Your task to perform on an android device: Search for usb-a on bestbuy, select the first entry, and add it to the cart. Image 0: 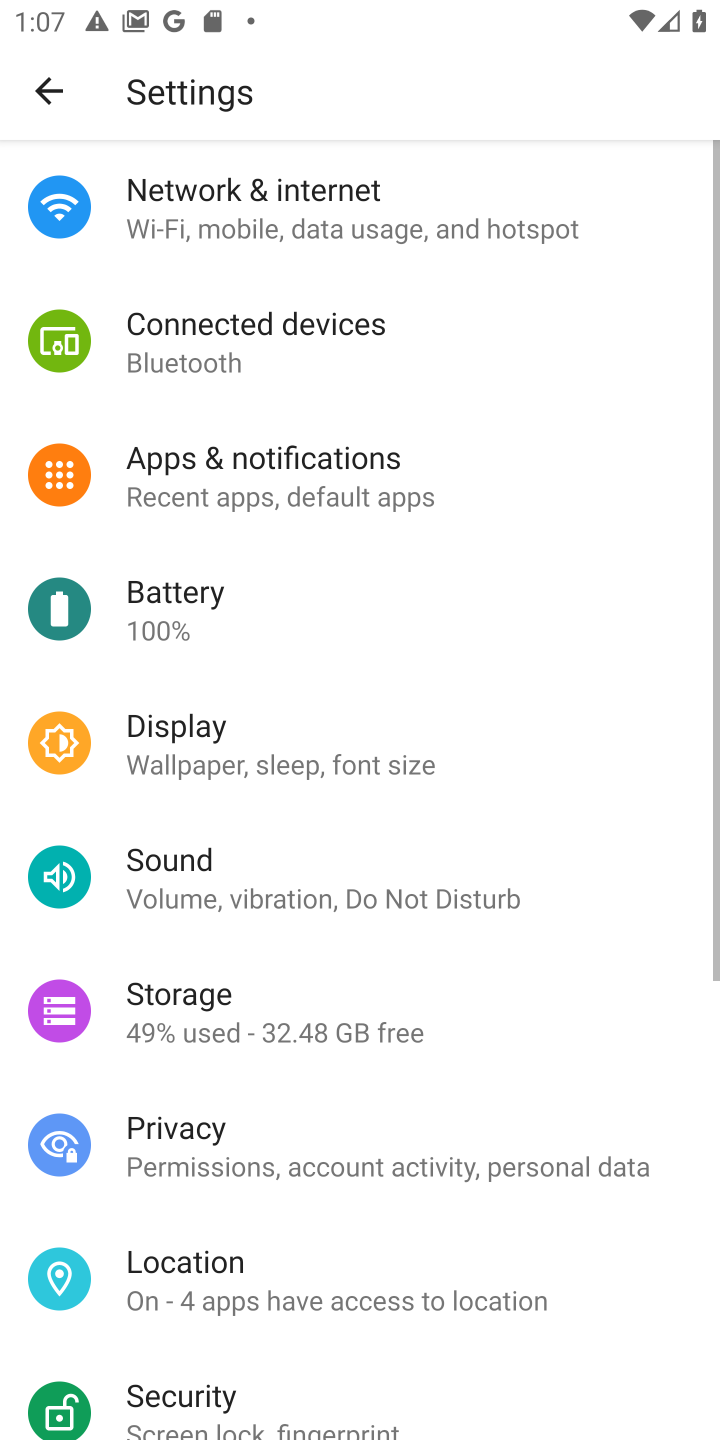
Step 0: press home button
Your task to perform on an android device: Search for usb-a on bestbuy, select the first entry, and add it to the cart. Image 1: 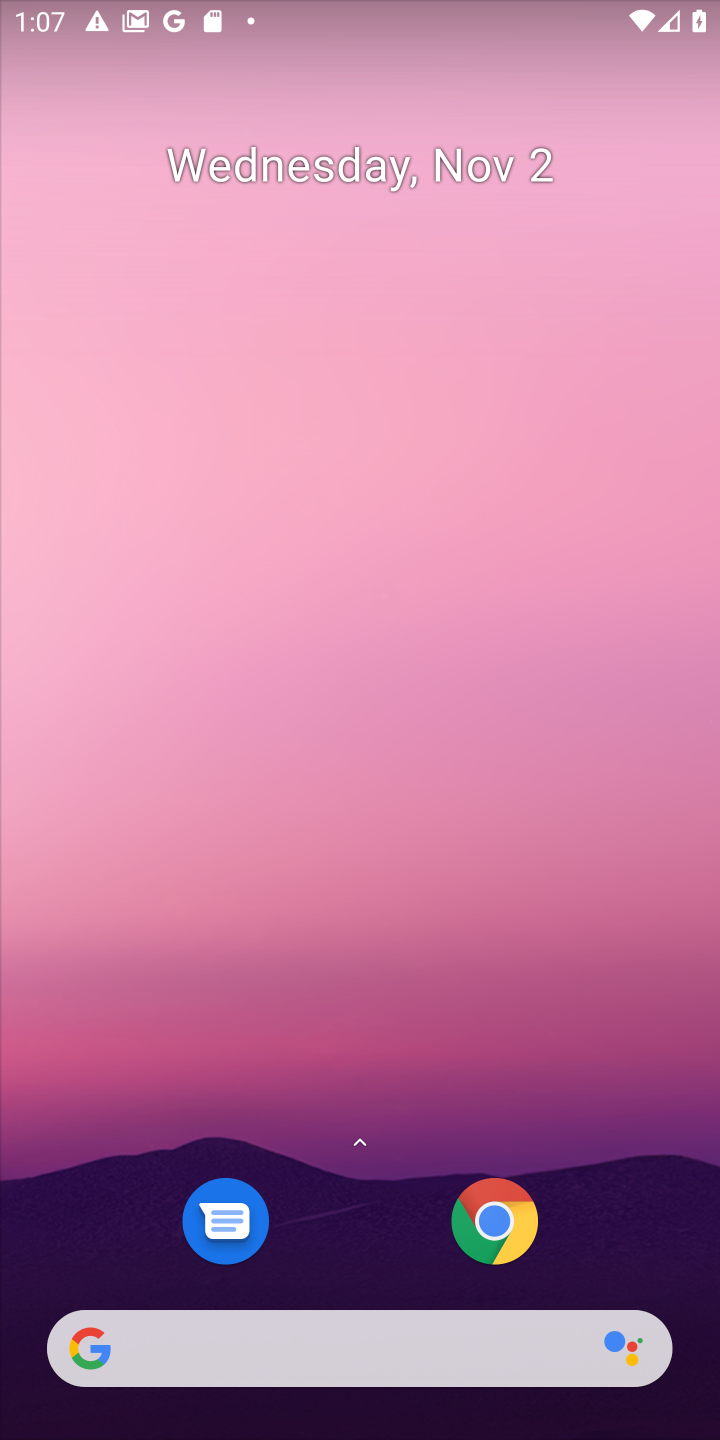
Step 1: click (418, 1384)
Your task to perform on an android device: Search for usb-a on bestbuy, select the first entry, and add it to the cart. Image 2: 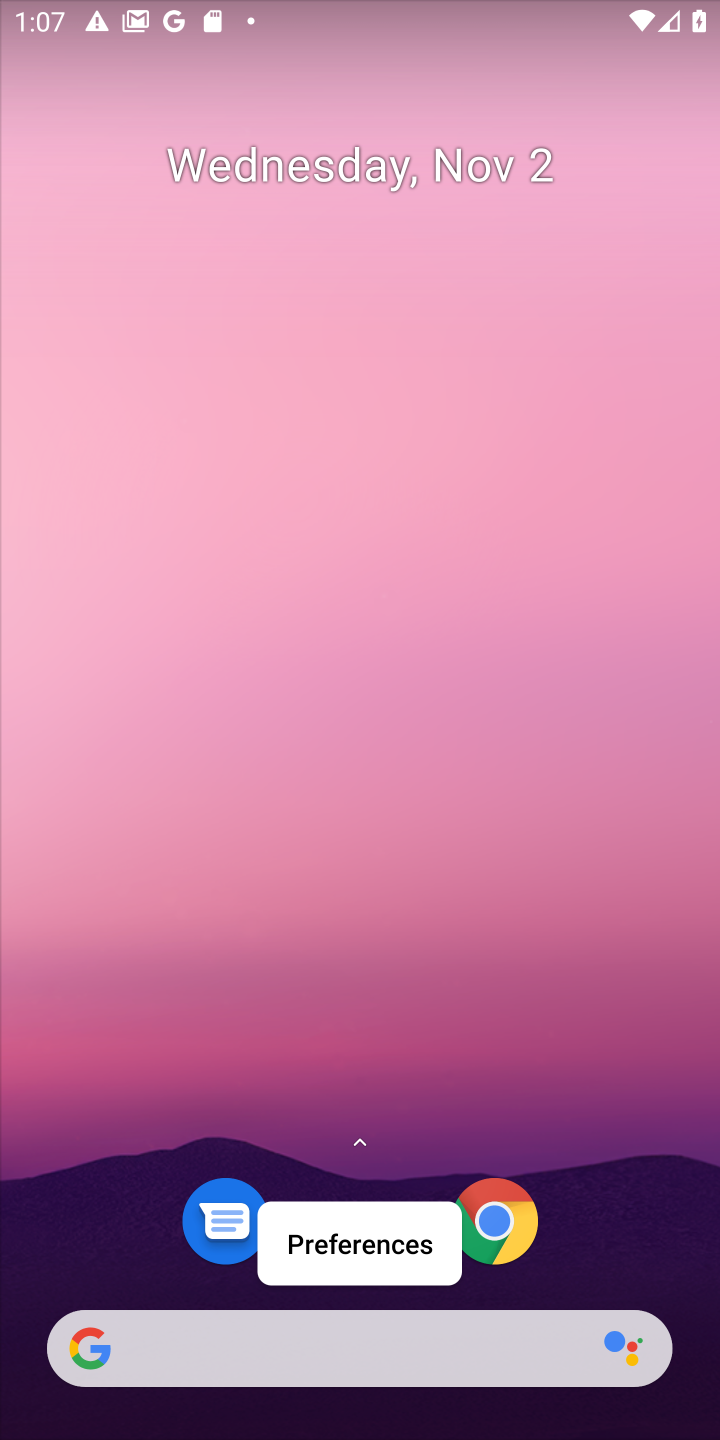
Step 2: click (415, 1335)
Your task to perform on an android device: Search for usb-a on bestbuy, select the first entry, and add it to the cart. Image 3: 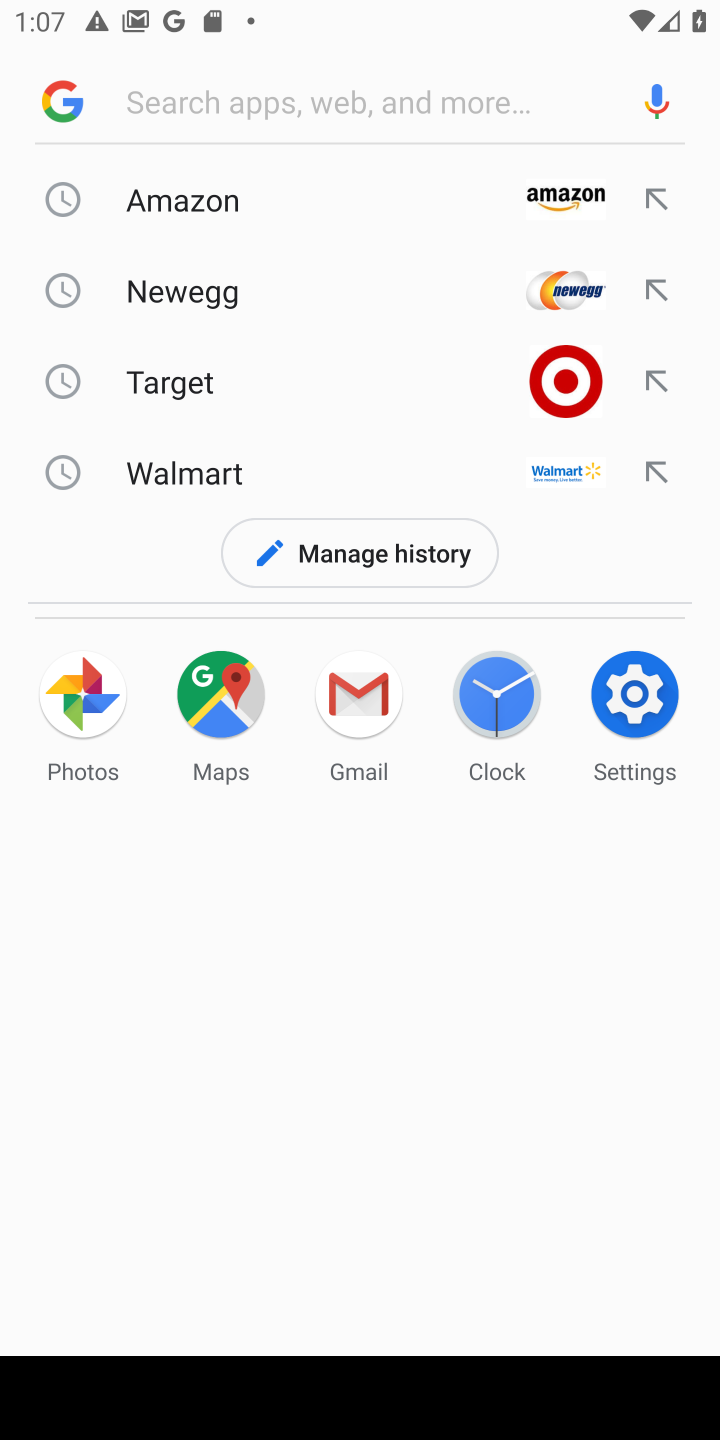
Step 3: type "bestbuy"
Your task to perform on an android device: Search for usb-a on bestbuy, select the first entry, and add it to the cart. Image 4: 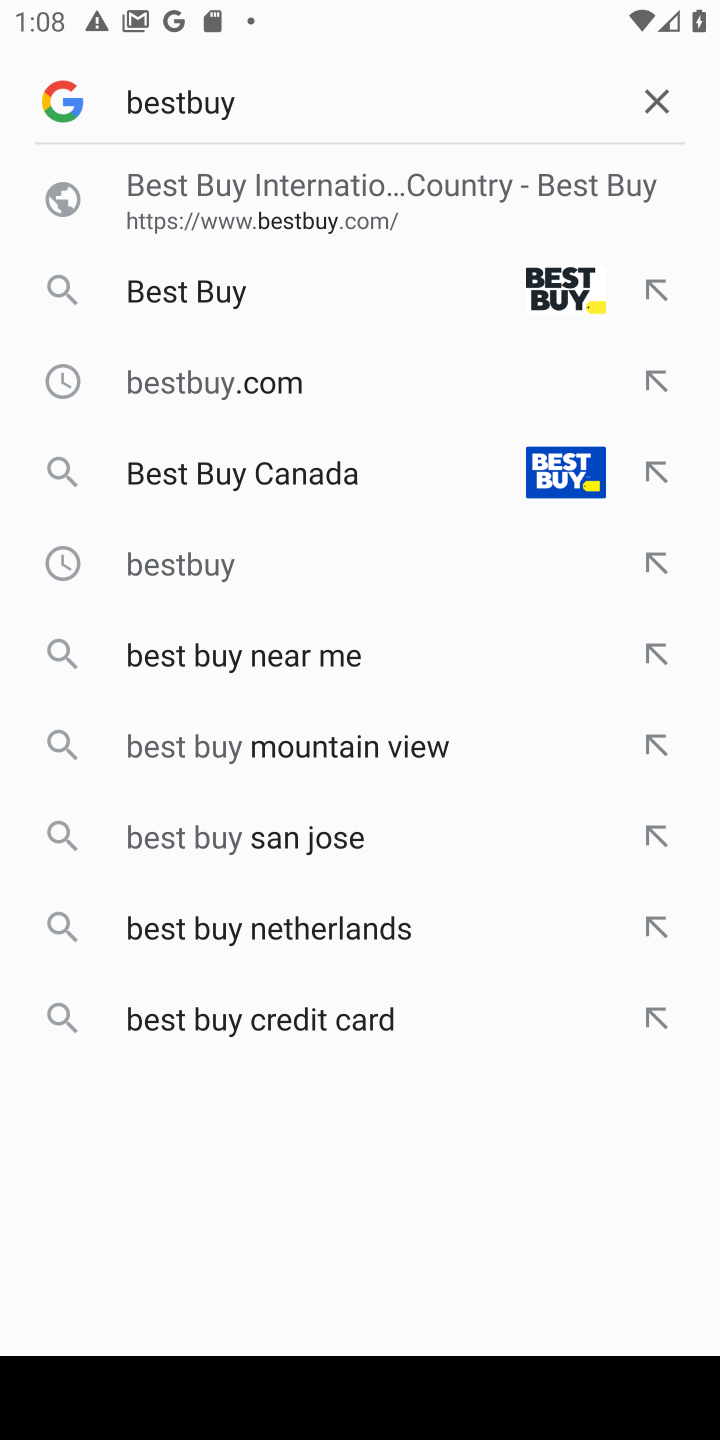
Step 4: click (342, 216)
Your task to perform on an android device: Search for usb-a on bestbuy, select the first entry, and add it to the cart. Image 5: 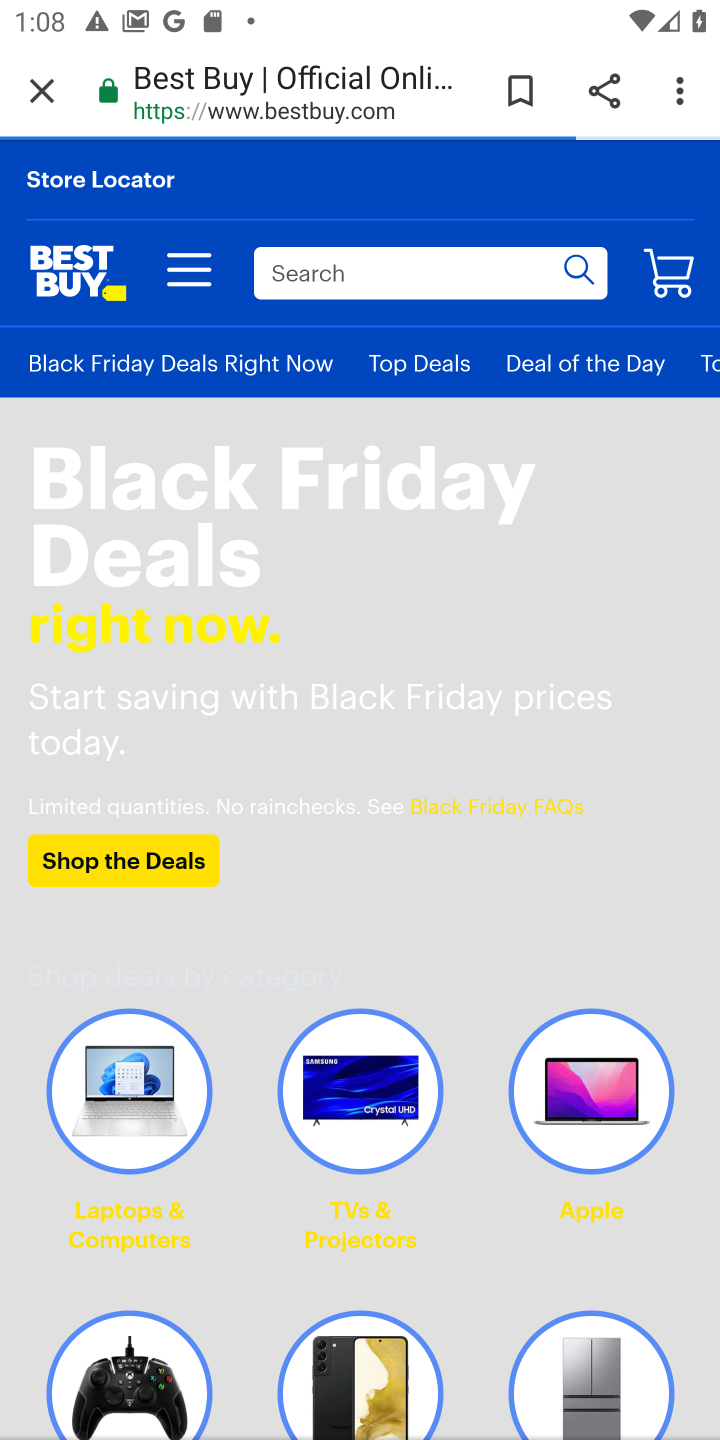
Step 5: click (361, 261)
Your task to perform on an android device: Search for usb-a on bestbuy, select the first entry, and add it to the cart. Image 6: 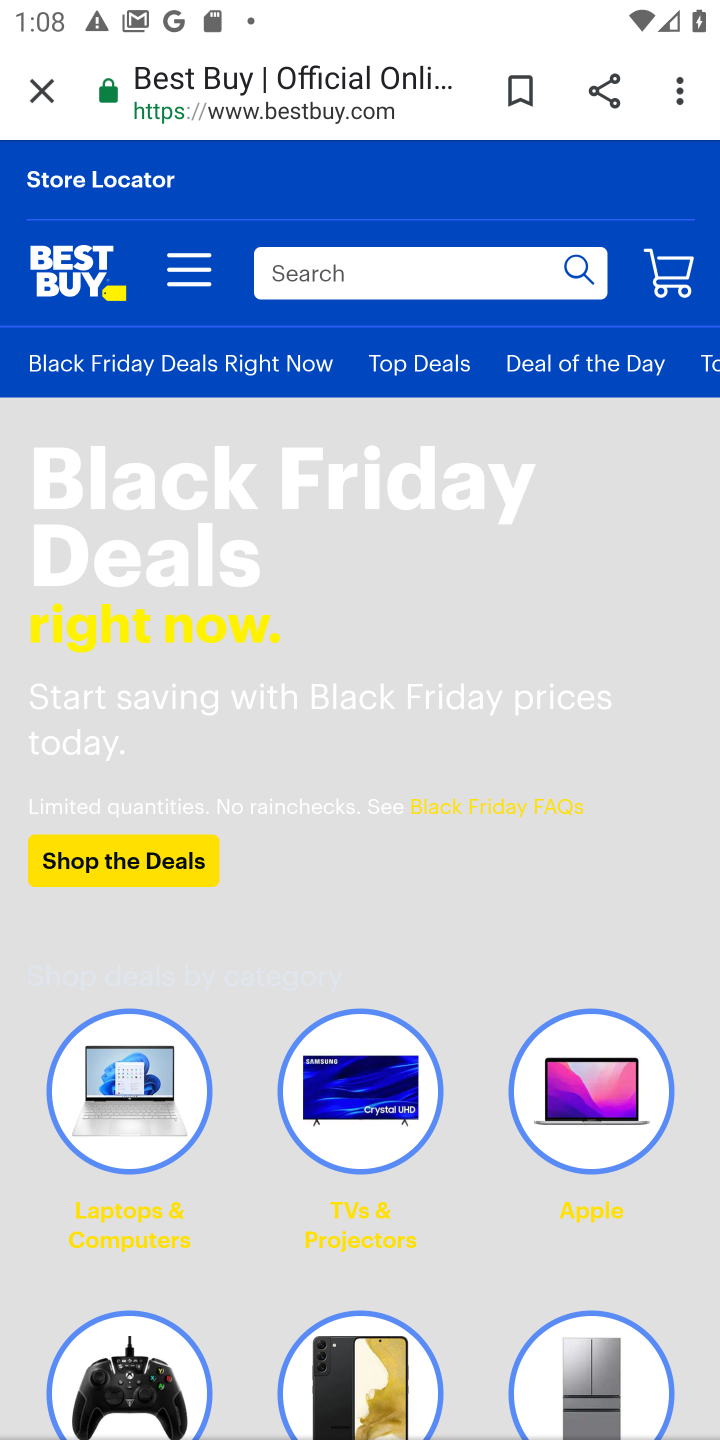
Step 6: type "ubb-a"
Your task to perform on an android device: Search for usb-a on bestbuy, select the first entry, and add it to the cart. Image 7: 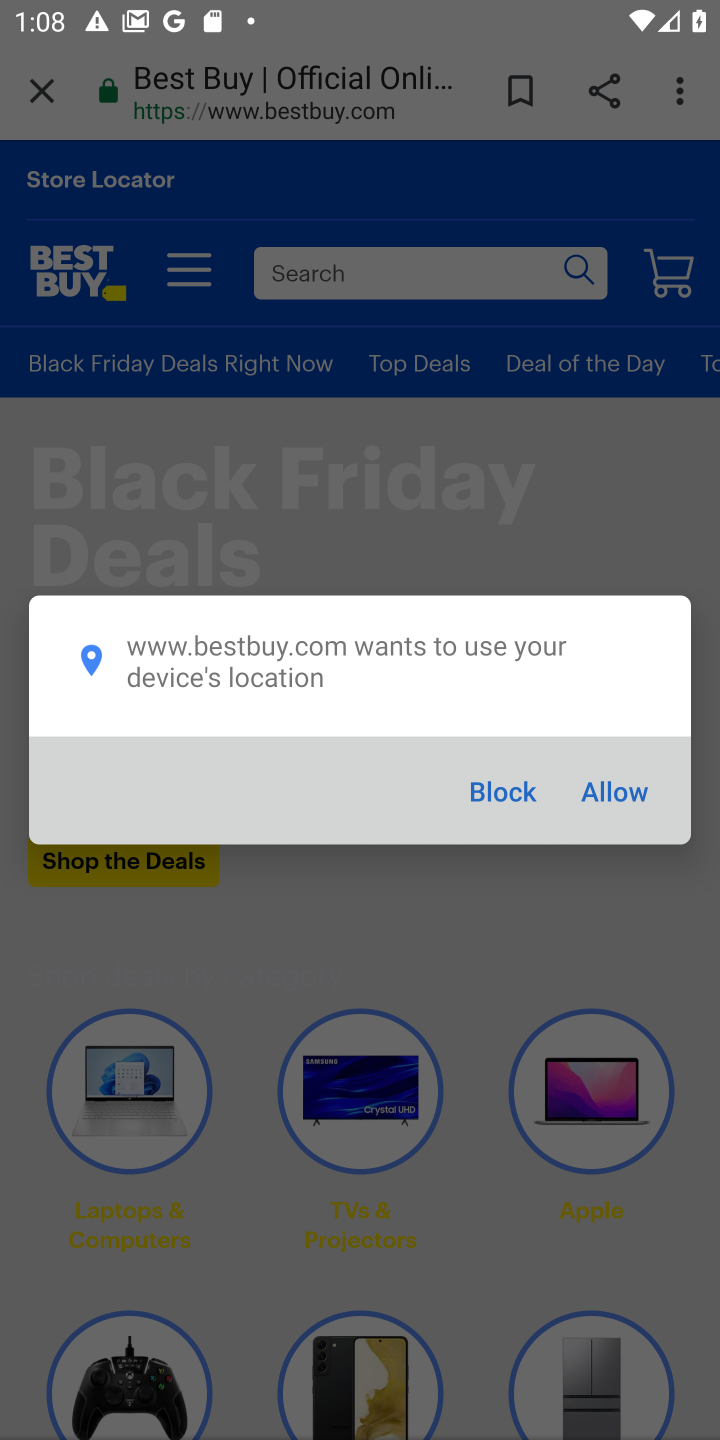
Step 7: click (493, 817)
Your task to perform on an android device: Search for usb-a on bestbuy, select the first entry, and add it to the cart. Image 8: 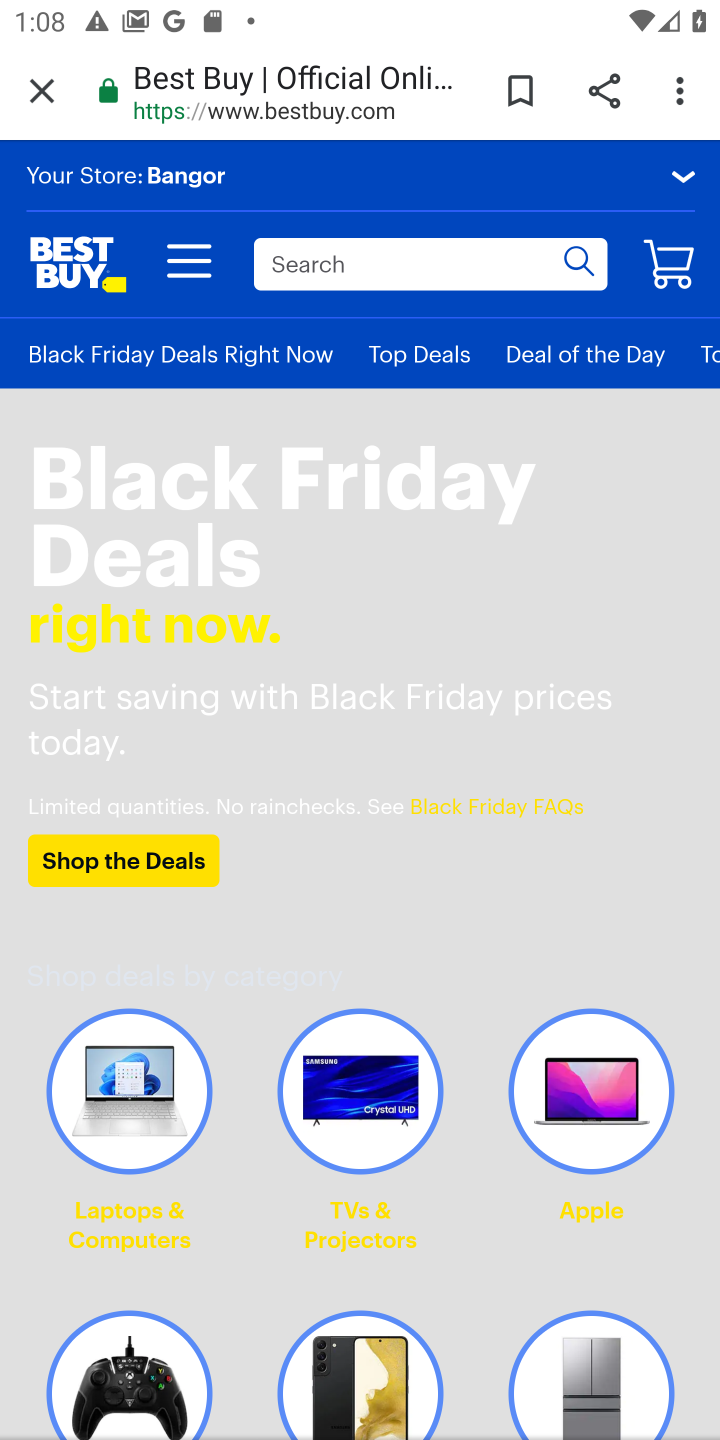
Step 8: click (478, 291)
Your task to perform on an android device: Search for usb-a on bestbuy, select the first entry, and add it to the cart. Image 9: 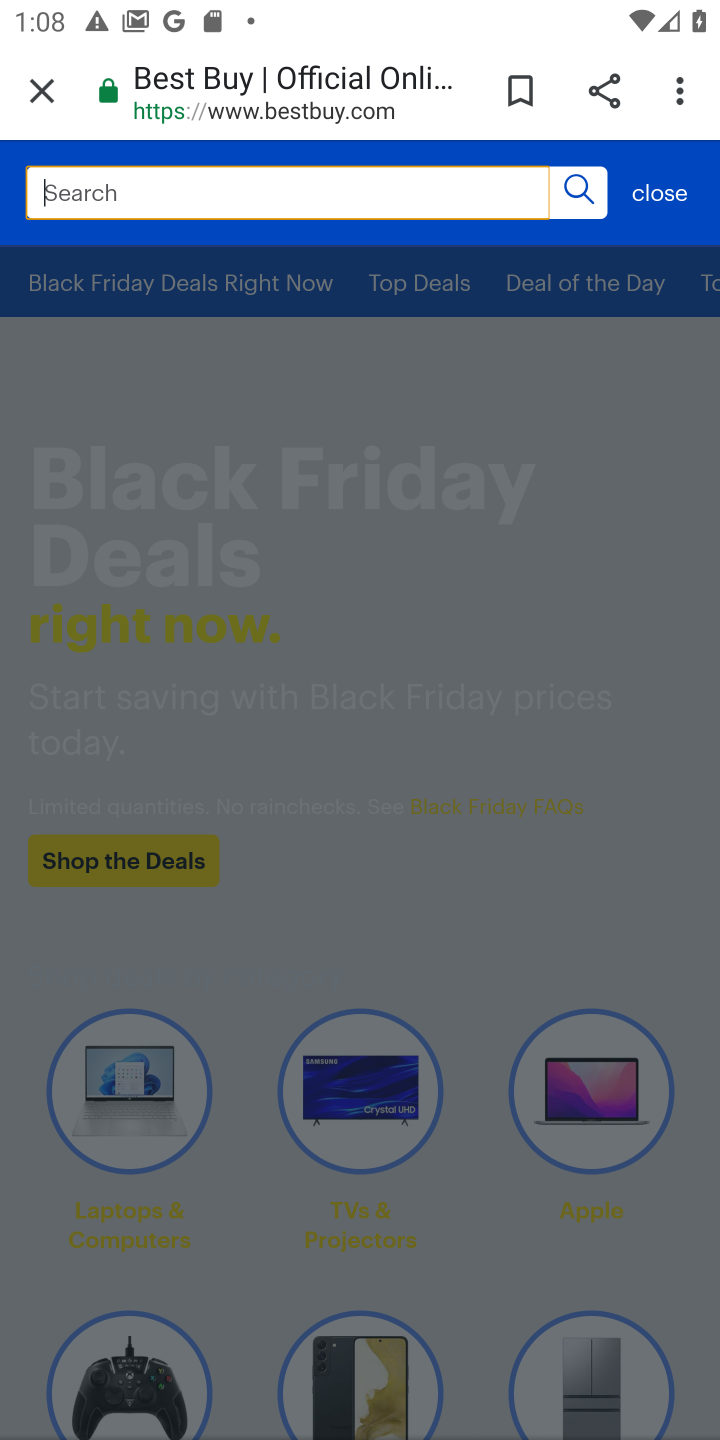
Step 9: click (464, 272)
Your task to perform on an android device: Search for usb-a on bestbuy, select the first entry, and add it to the cart. Image 10: 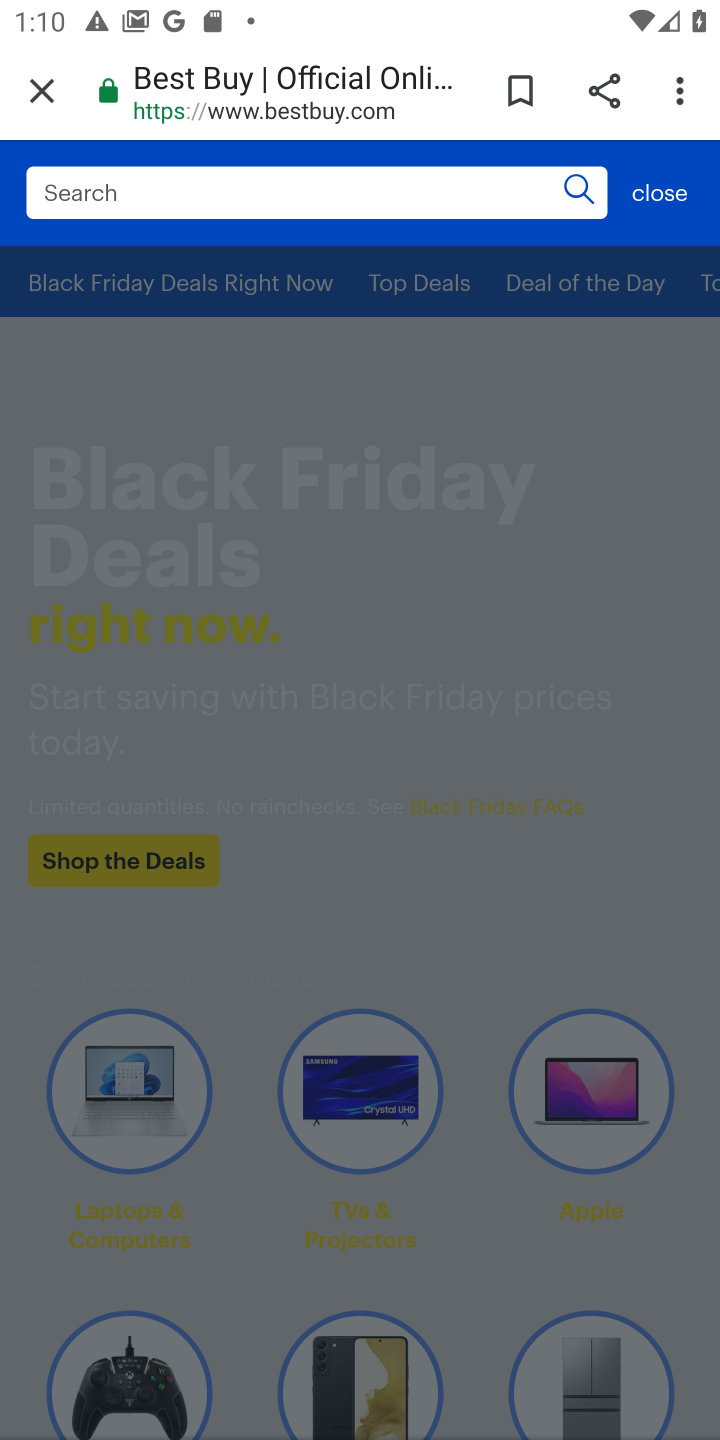
Step 10: click (311, 199)
Your task to perform on an android device: Search for usb-a on bestbuy, select the first entry, and add it to the cart. Image 11: 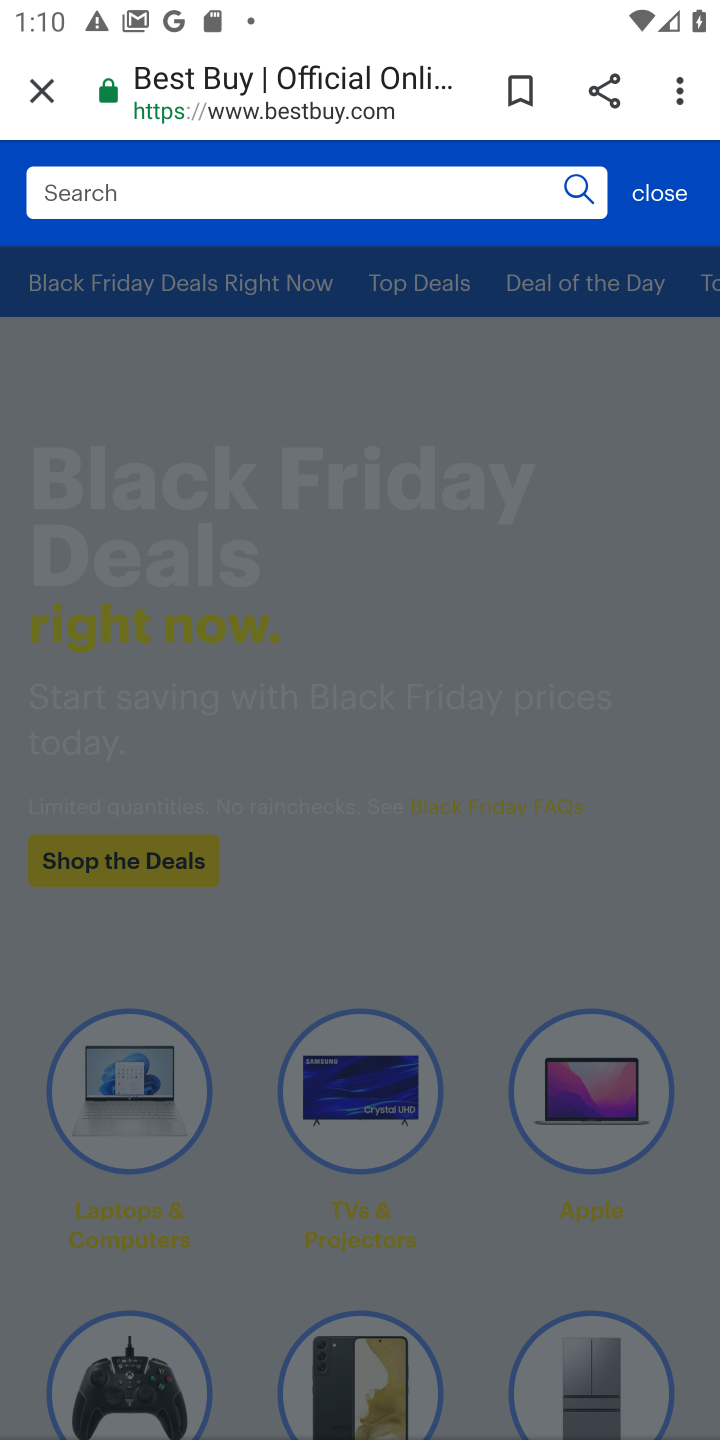
Step 11: type "usb"
Your task to perform on an android device: Search for usb-a on bestbuy, select the first entry, and add it to the cart. Image 12: 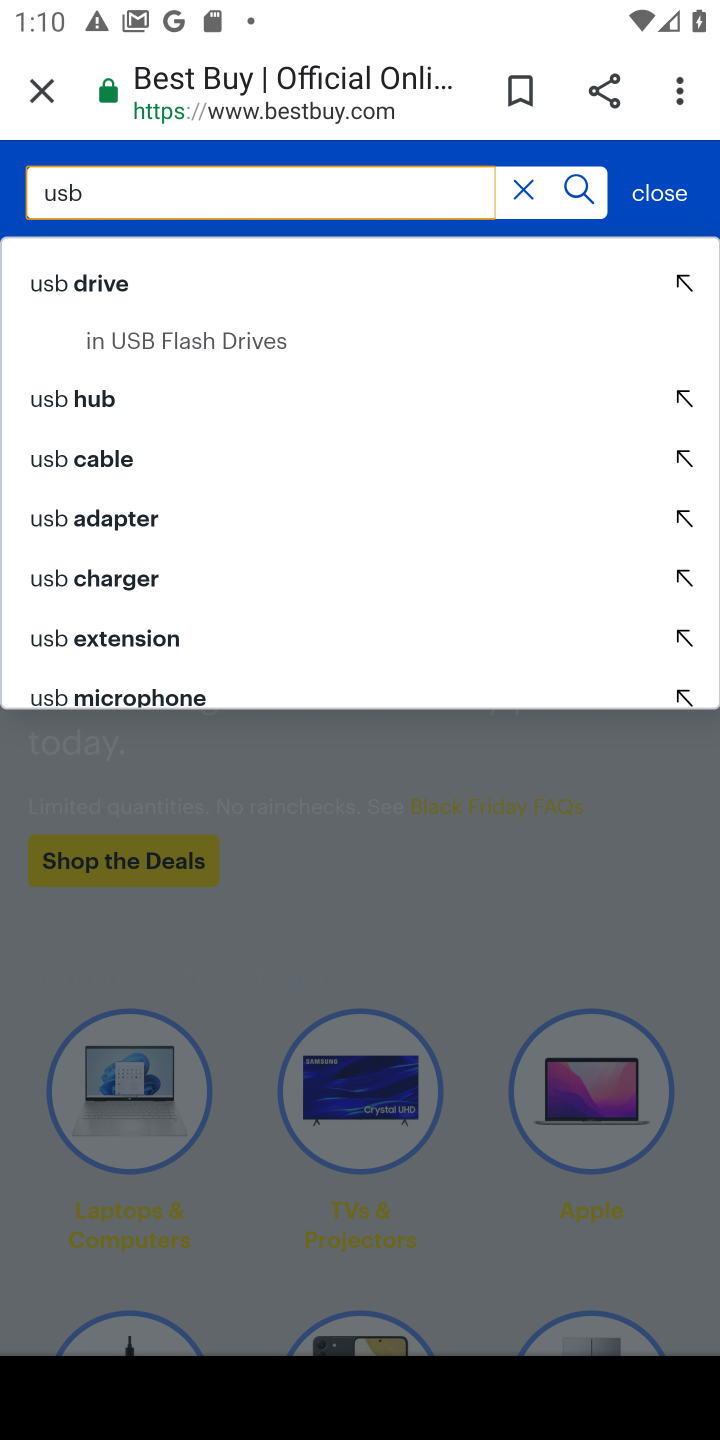
Step 12: type "usb-a"
Your task to perform on an android device: Search for usb-a on bestbuy, select the first entry, and add it to the cart. Image 13: 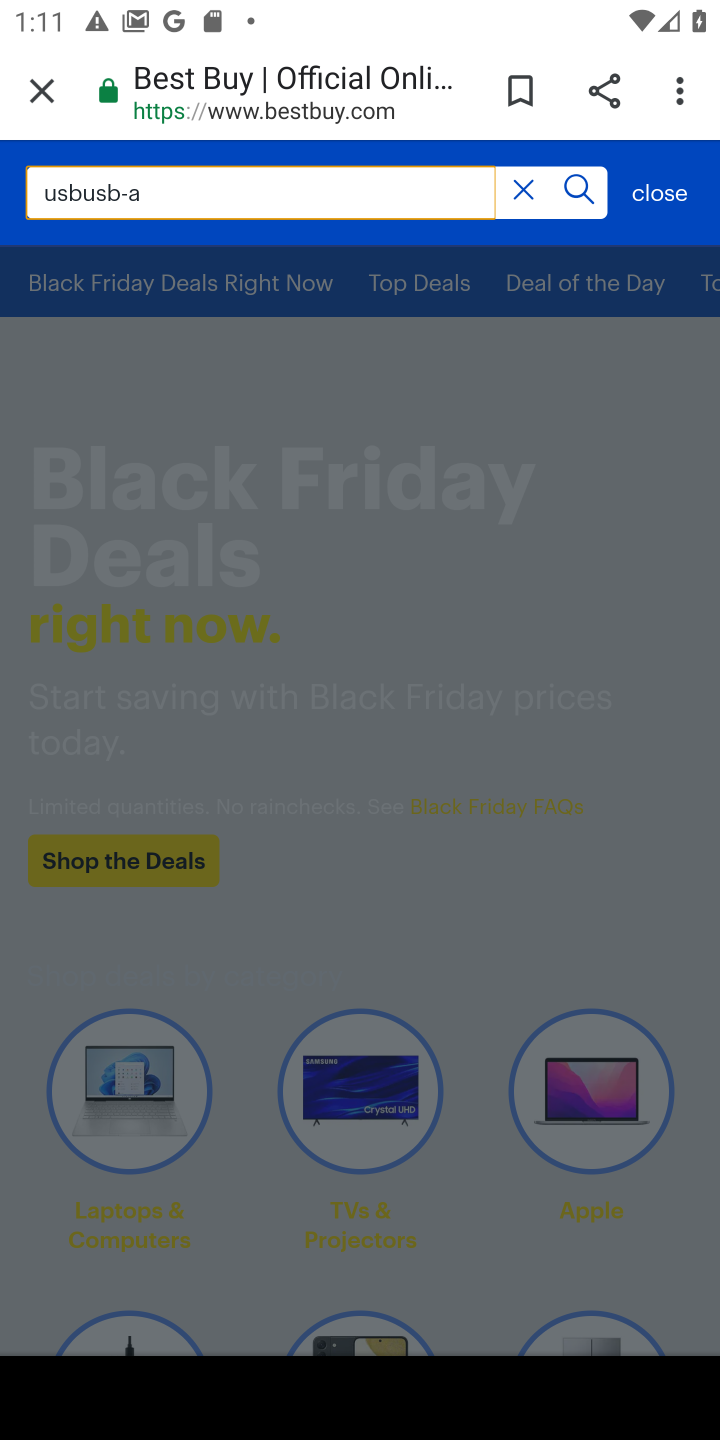
Step 13: click (580, 190)
Your task to perform on an android device: Search for usb-a on bestbuy, select the first entry, and add it to the cart. Image 14: 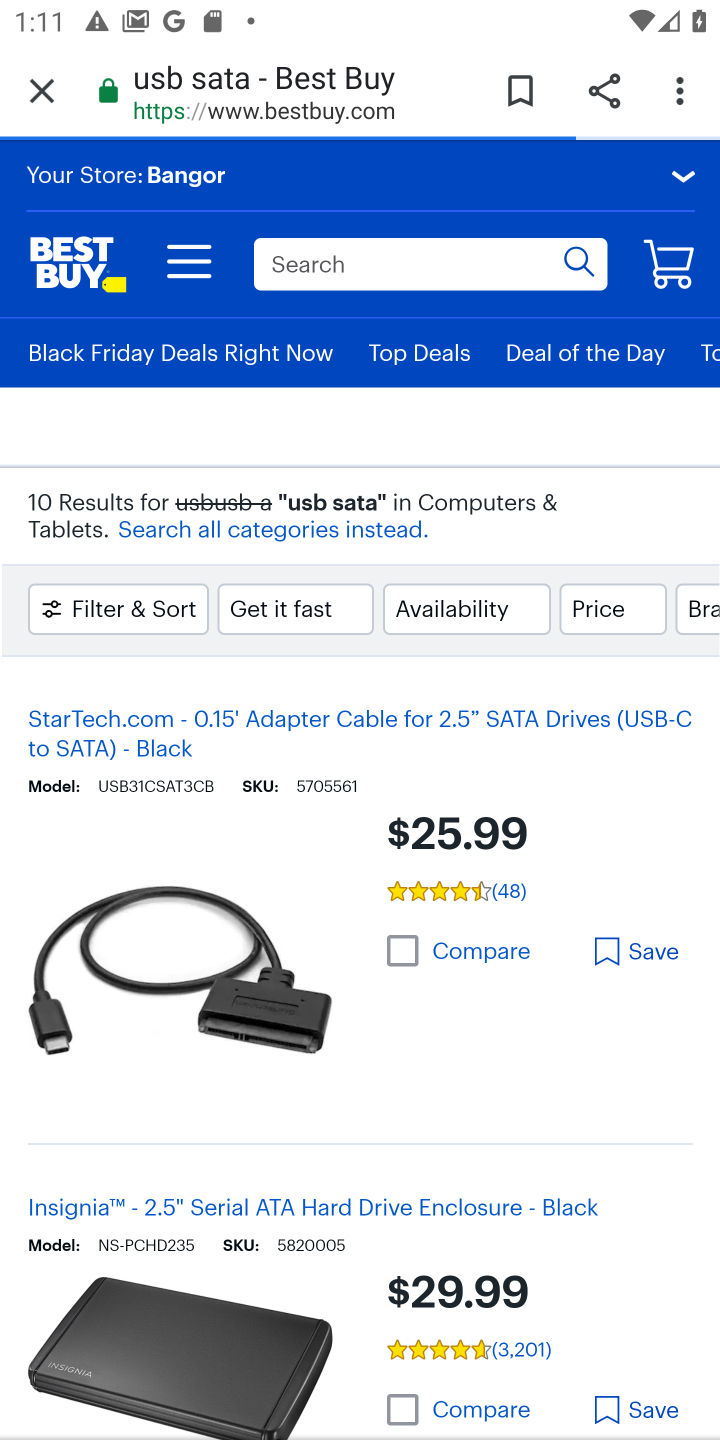
Step 14: click (300, 968)
Your task to perform on an android device: Search for usb-a on bestbuy, select the first entry, and add it to the cart. Image 15: 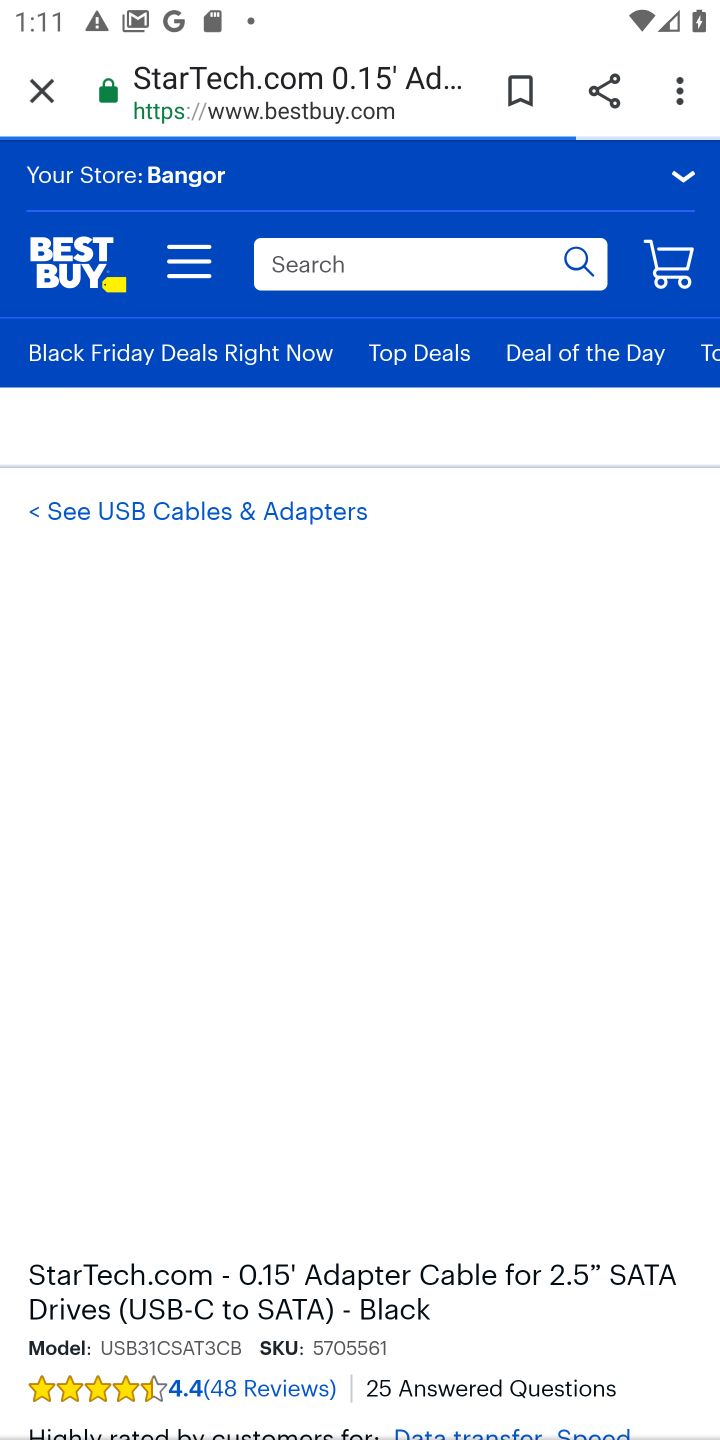
Step 15: drag from (400, 1109) to (386, 108)
Your task to perform on an android device: Search for usb-a on bestbuy, select the first entry, and add it to the cart. Image 16: 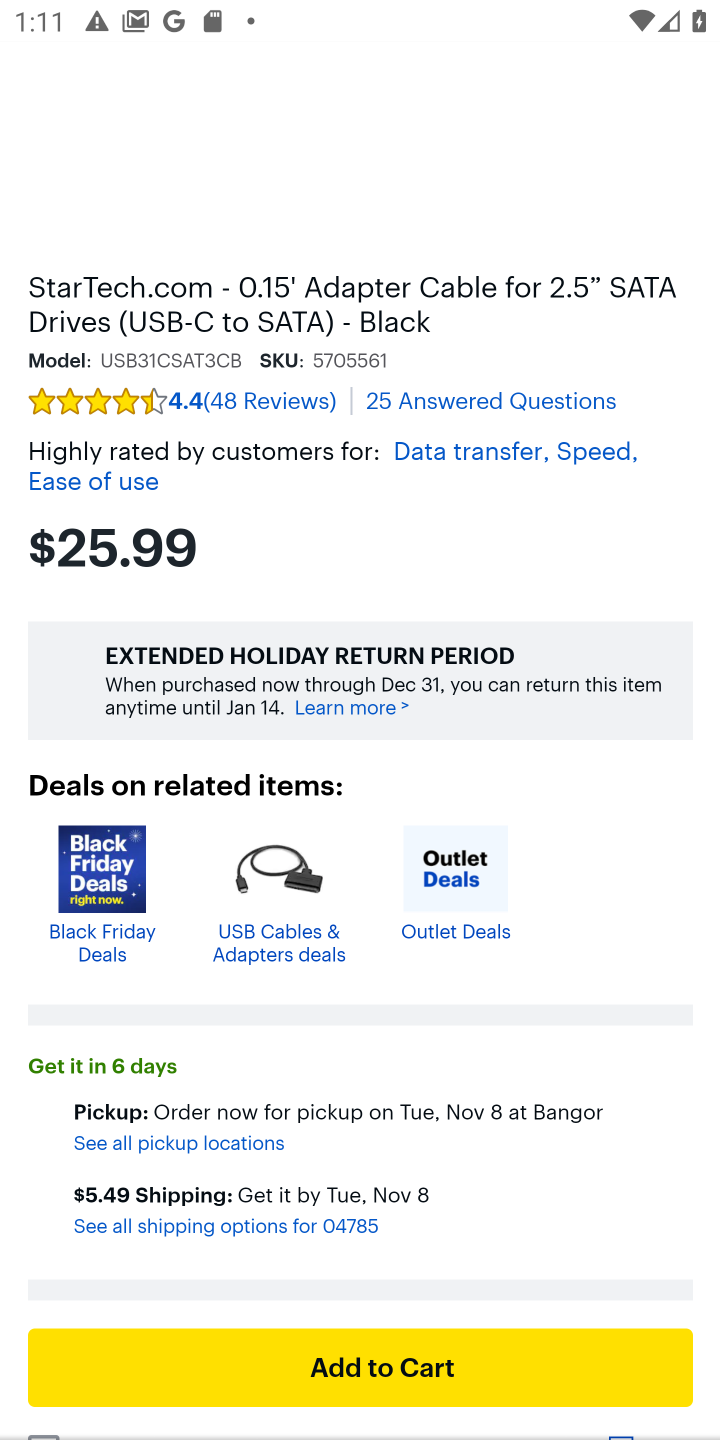
Step 16: click (510, 1381)
Your task to perform on an android device: Search for usb-a on bestbuy, select the first entry, and add it to the cart. Image 17: 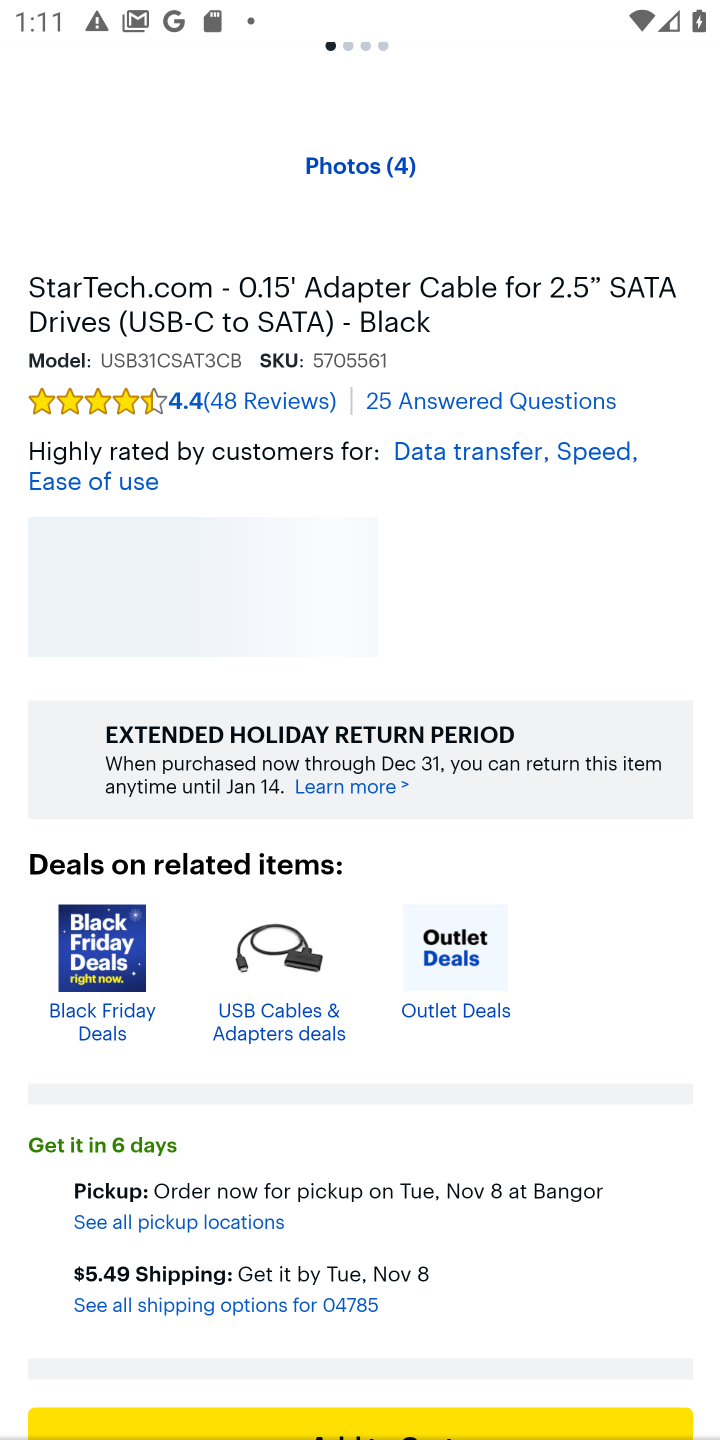
Step 17: task complete